Your task to perform on an android device: toggle sleep mode Image 0: 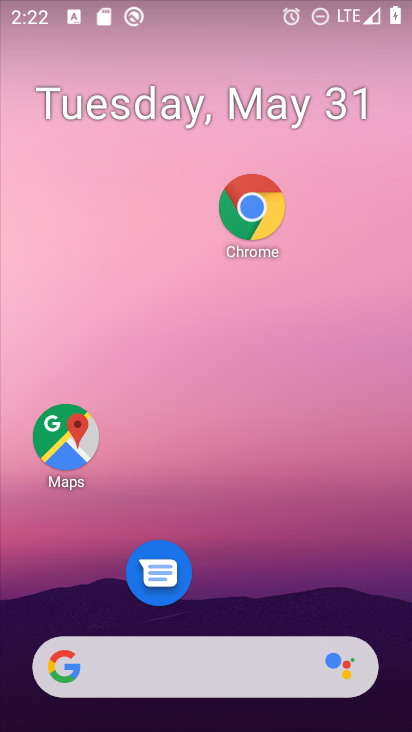
Step 0: drag from (193, 545) to (191, 133)
Your task to perform on an android device: toggle sleep mode Image 1: 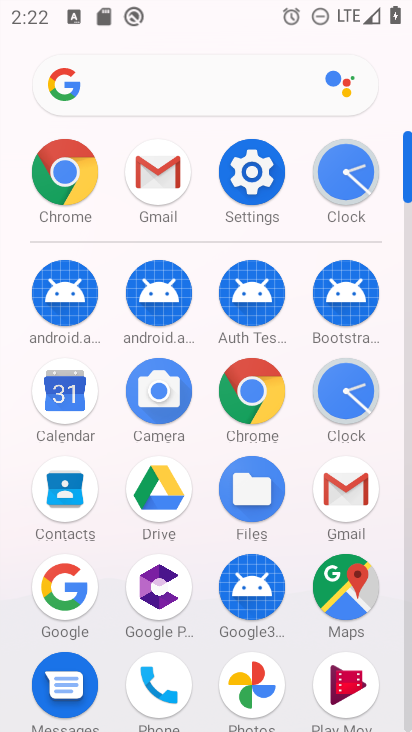
Step 1: drag from (224, 510) to (205, 384)
Your task to perform on an android device: toggle sleep mode Image 2: 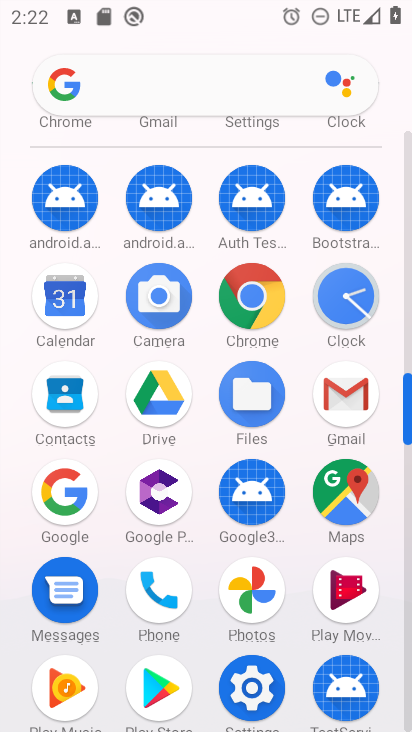
Step 2: drag from (173, 490) to (167, 243)
Your task to perform on an android device: toggle sleep mode Image 3: 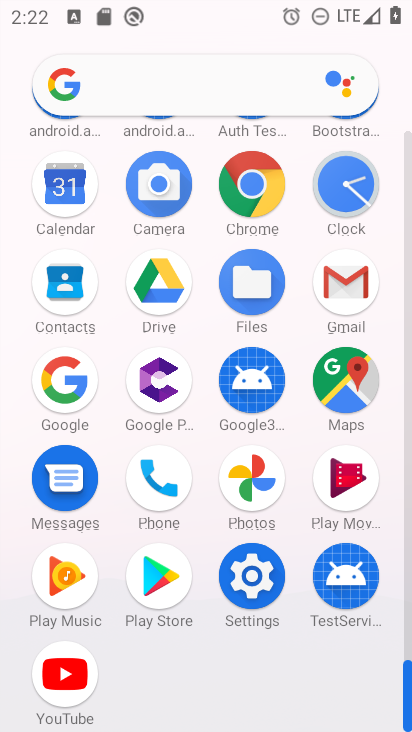
Step 3: click (258, 586)
Your task to perform on an android device: toggle sleep mode Image 4: 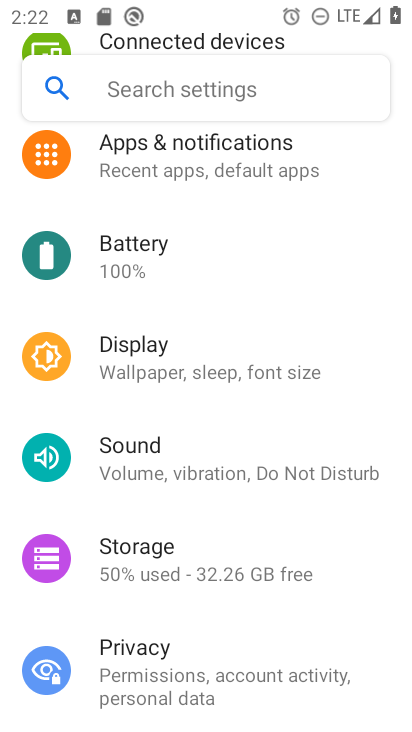
Step 4: drag from (217, 337) to (198, 664)
Your task to perform on an android device: toggle sleep mode Image 5: 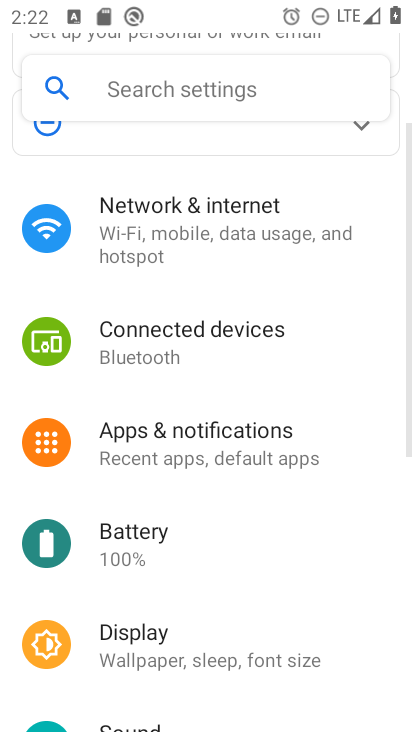
Step 5: drag from (180, 409) to (178, 630)
Your task to perform on an android device: toggle sleep mode Image 6: 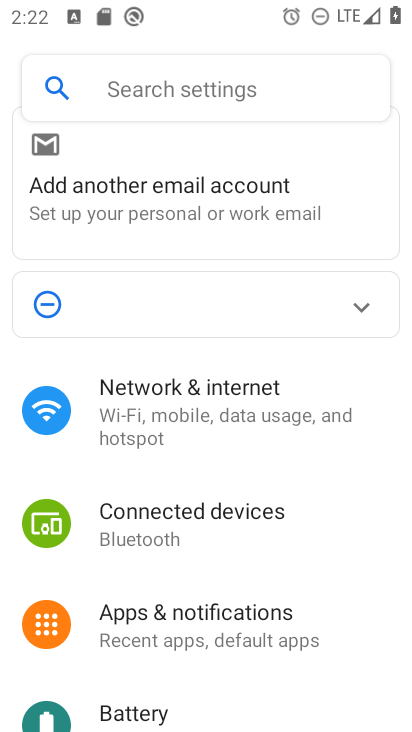
Step 6: click (174, 423)
Your task to perform on an android device: toggle sleep mode Image 7: 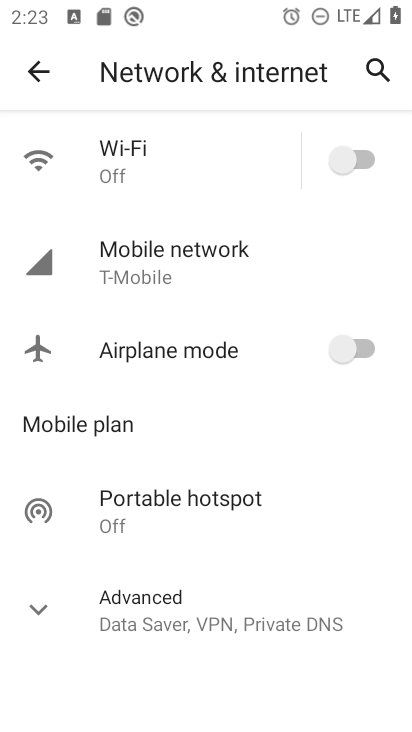
Step 7: click (156, 620)
Your task to perform on an android device: toggle sleep mode Image 8: 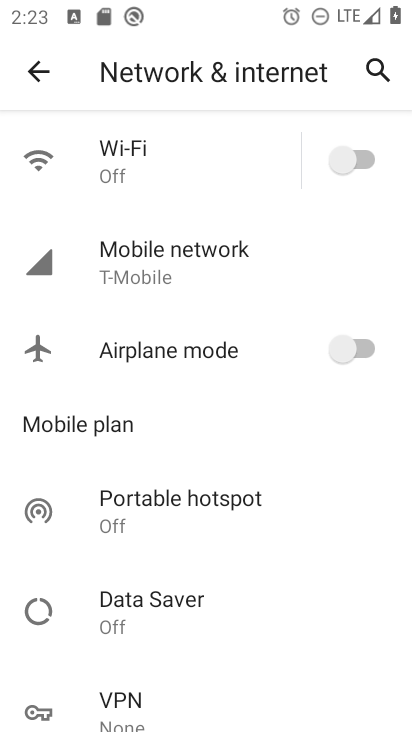
Step 8: task complete